Your task to perform on an android device: Open Chrome and go to settings Image 0: 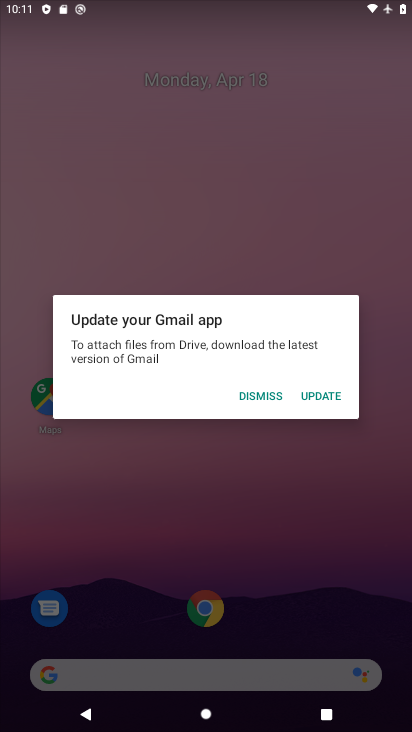
Step 0: press home button
Your task to perform on an android device: Open Chrome and go to settings Image 1: 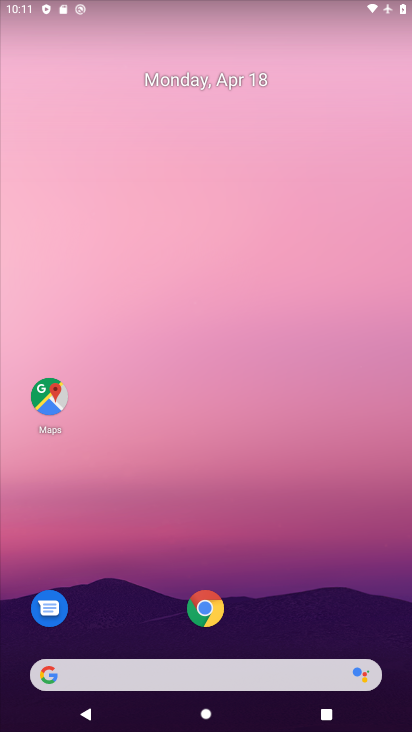
Step 1: click (212, 606)
Your task to perform on an android device: Open Chrome and go to settings Image 2: 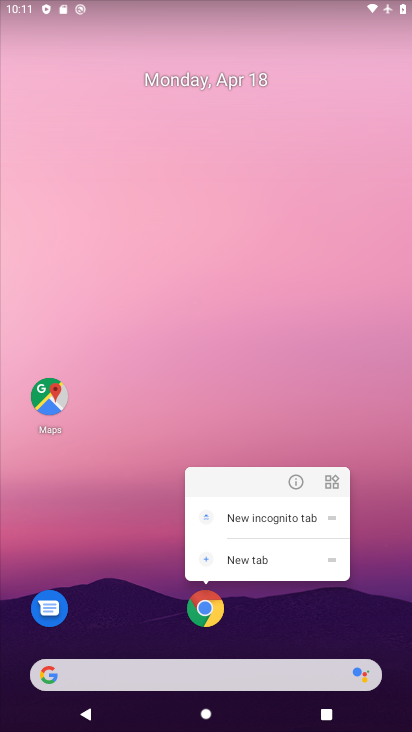
Step 2: click (216, 619)
Your task to perform on an android device: Open Chrome and go to settings Image 3: 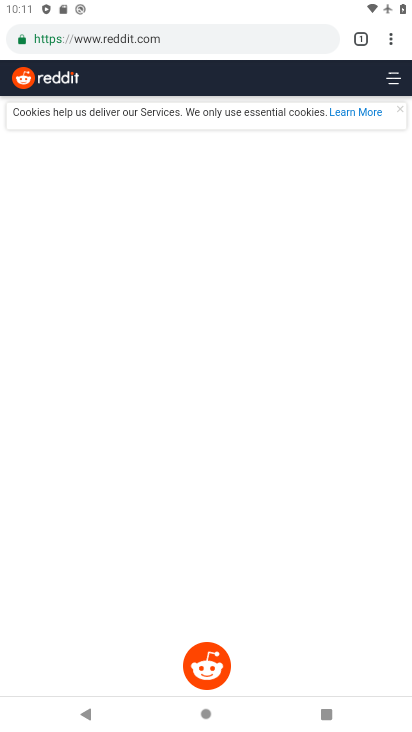
Step 3: task complete